Your task to perform on an android device: check out phone information Image 0: 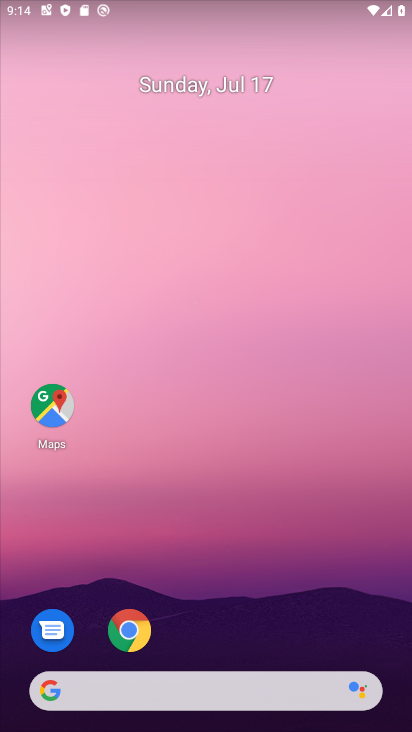
Step 0: drag from (184, 662) to (229, 171)
Your task to perform on an android device: check out phone information Image 1: 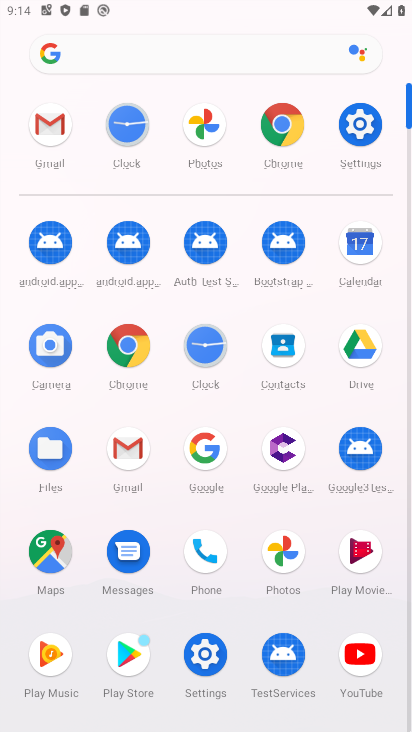
Step 1: click (353, 130)
Your task to perform on an android device: check out phone information Image 2: 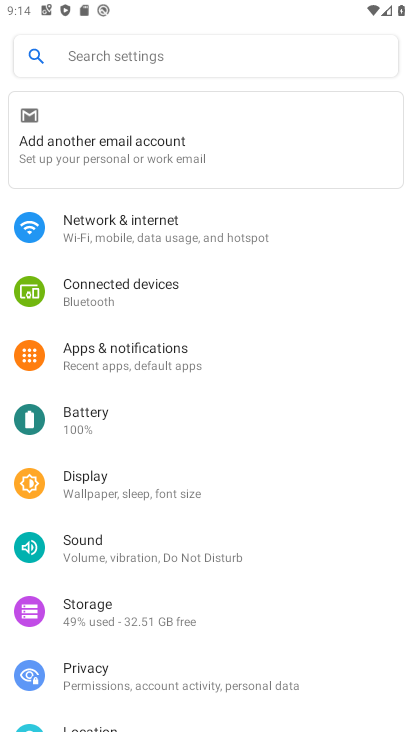
Step 2: drag from (176, 681) to (146, 145)
Your task to perform on an android device: check out phone information Image 3: 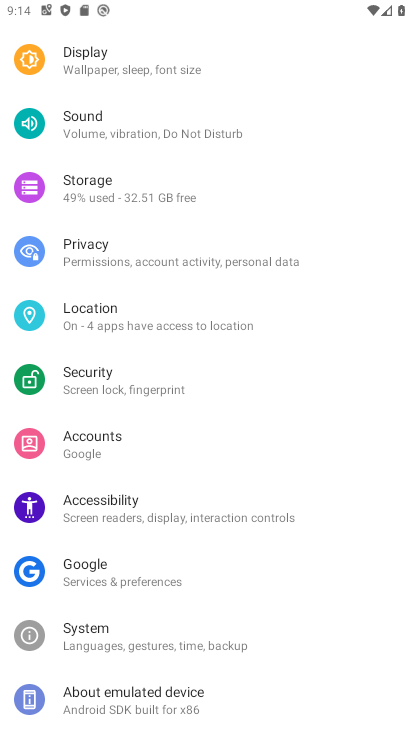
Step 3: drag from (129, 708) to (179, 452)
Your task to perform on an android device: check out phone information Image 4: 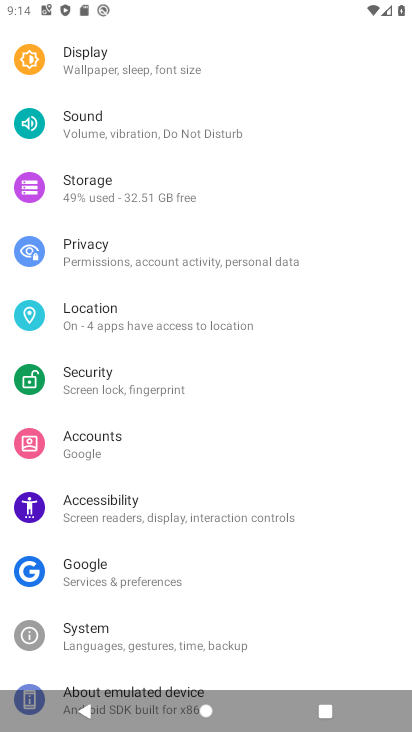
Step 4: click (145, 680)
Your task to perform on an android device: check out phone information Image 5: 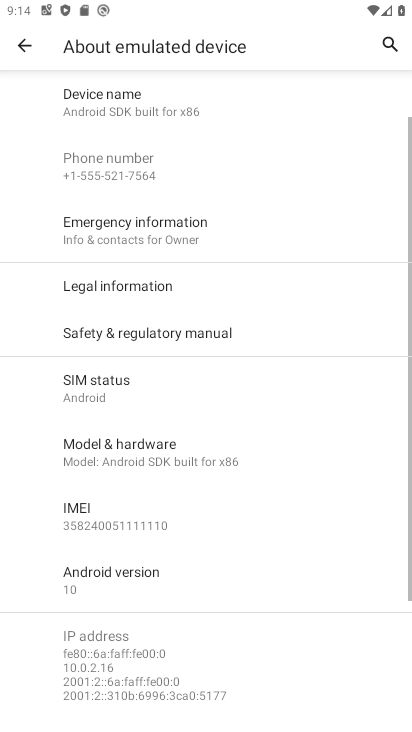
Step 5: task complete